Your task to perform on an android device: Go to Yahoo.com Image 0: 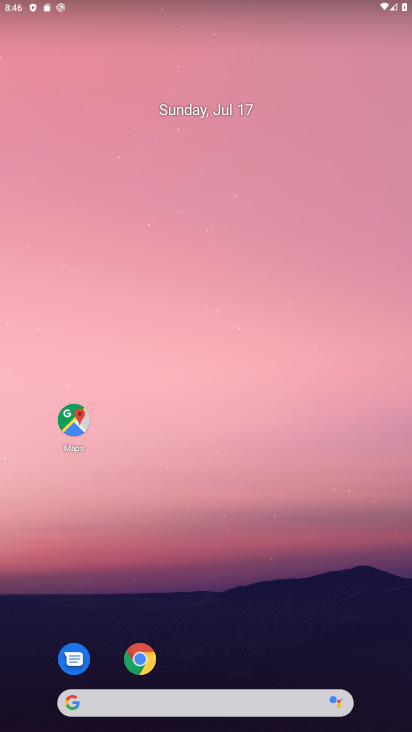
Step 0: click (152, 653)
Your task to perform on an android device: Go to Yahoo.com Image 1: 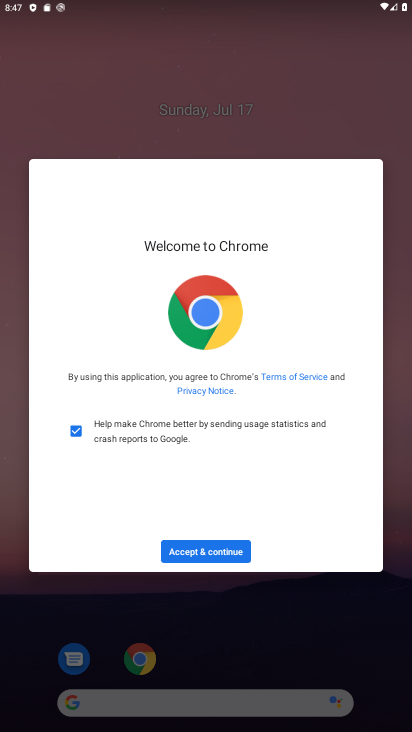
Step 1: click (233, 556)
Your task to perform on an android device: Go to Yahoo.com Image 2: 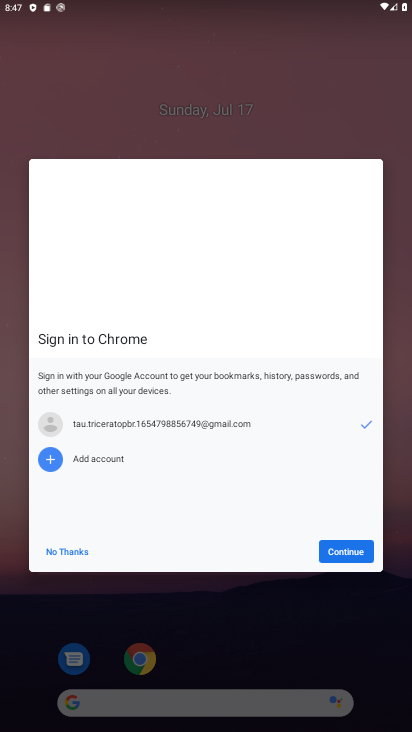
Step 2: click (330, 552)
Your task to perform on an android device: Go to Yahoo.com Image 3: 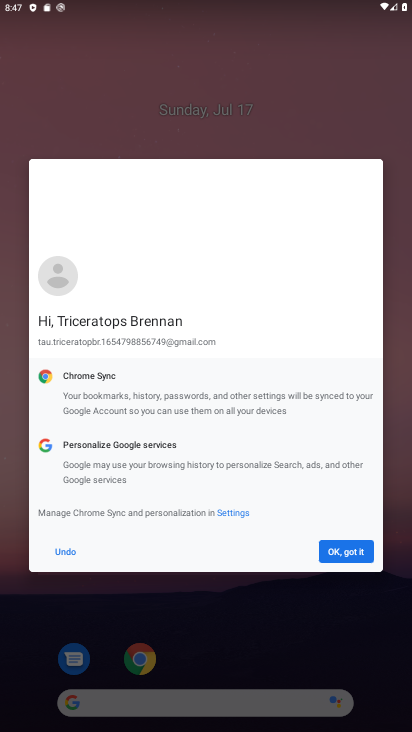
Step 3: click (330, 552)
Your task to perform on an android device: Go to Yahoo.com Image 4: 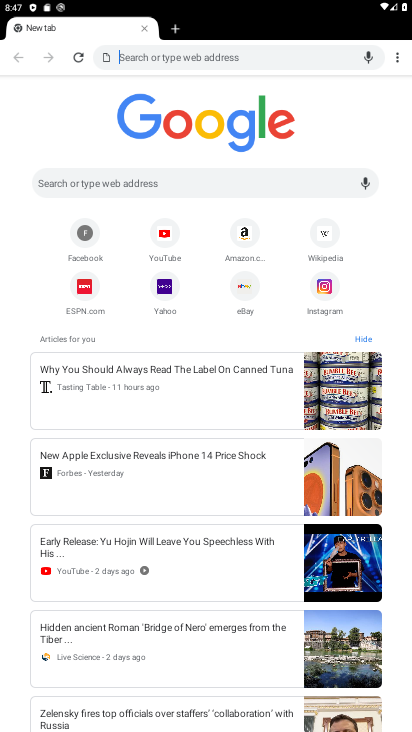
Step 4: click (167, 292)
Your task to perform on an android device: Go to Yahoo.com Image 5: 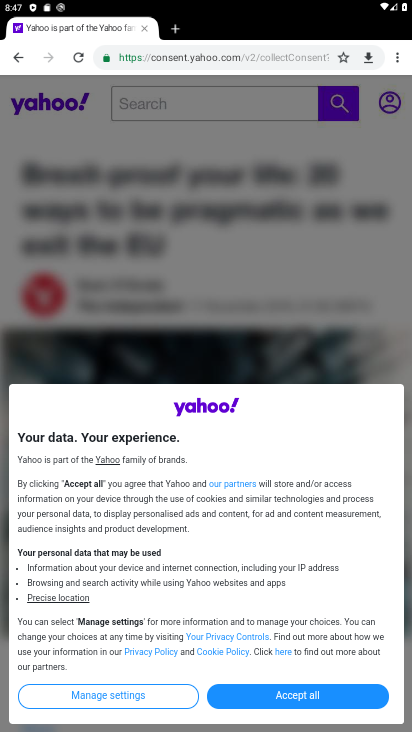
Step 5: task complete